Your task to perform on an android device: change timer sound Image 0: 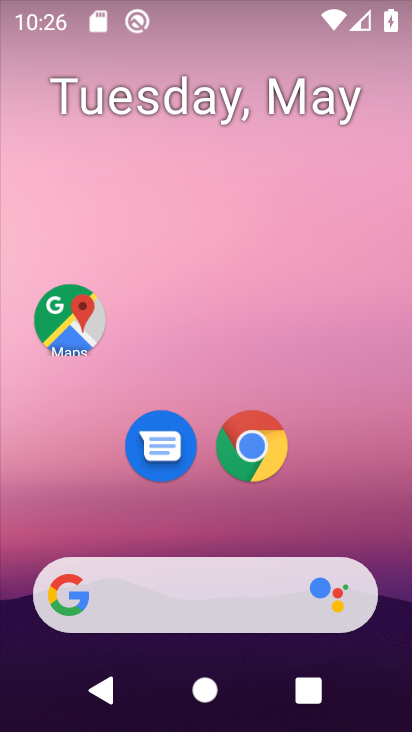
Step 0: drag from (296, 526) to (296, 211)
Your task to perform on an android device: change timer sound Image 1: 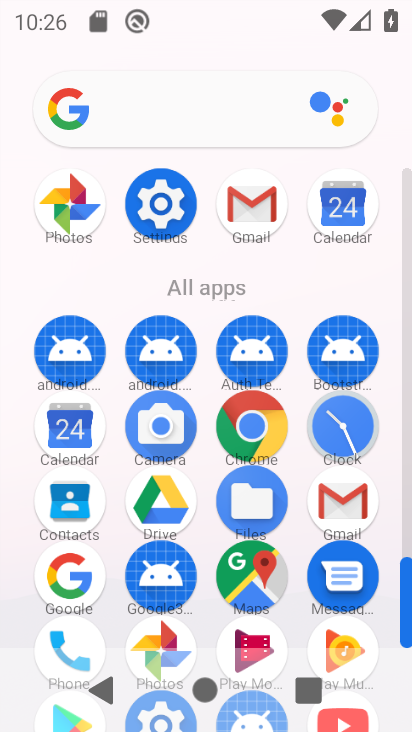
Step 1: click (339, 430)
Your task to perform on an android device: change timer sound Image 2: 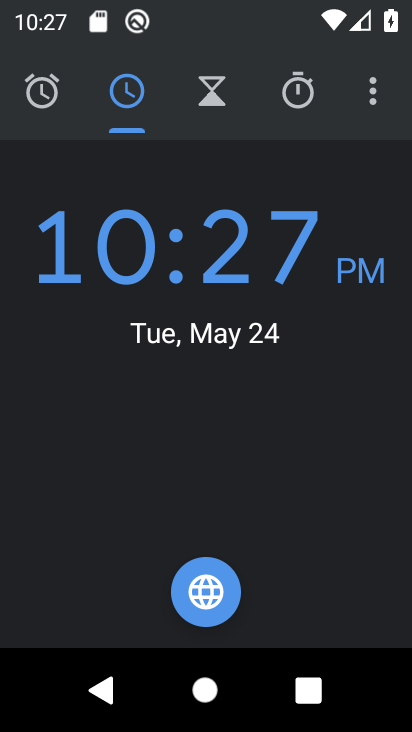
Step 2: click (372, 96)
Your task to perform on an android device: change timer sound Image 3: 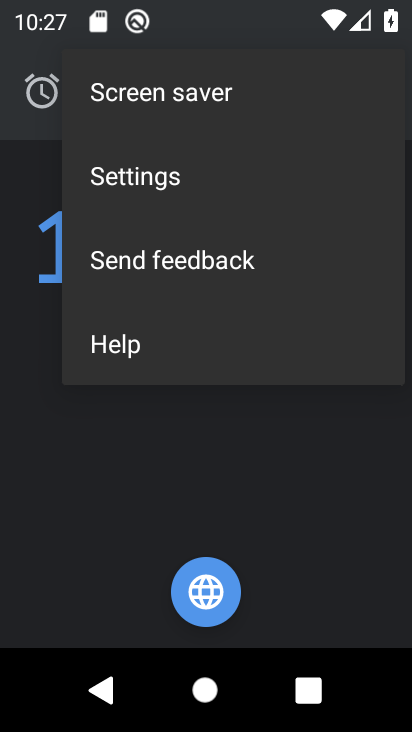
Step 3: click (140, 186)
Your task to perform on an android device: change timer sound Image 4: 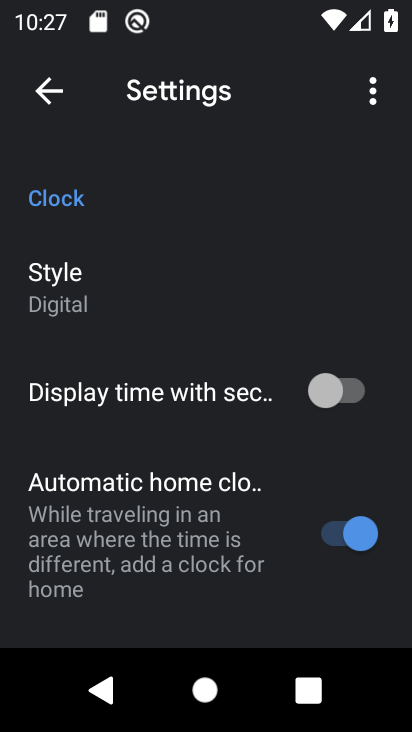
Step 4: drag from (211, 607) to (235, 182)
Your task to perform on an android device: change timer sound Image 5: 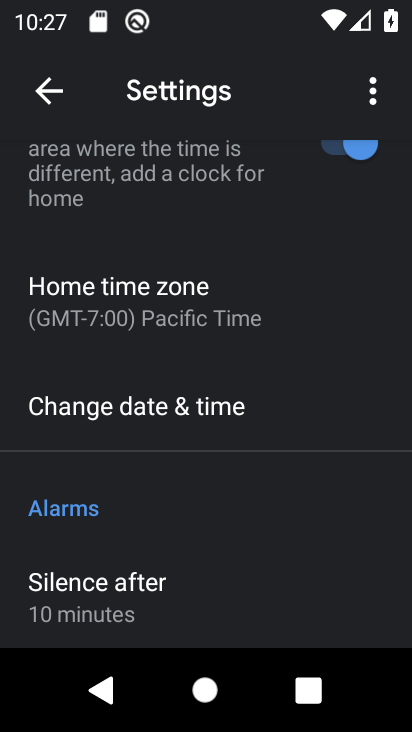
Step 5: drag from (203, 255) to (215, 180)
Your task to perform on an android device: change timer sound Image 6: 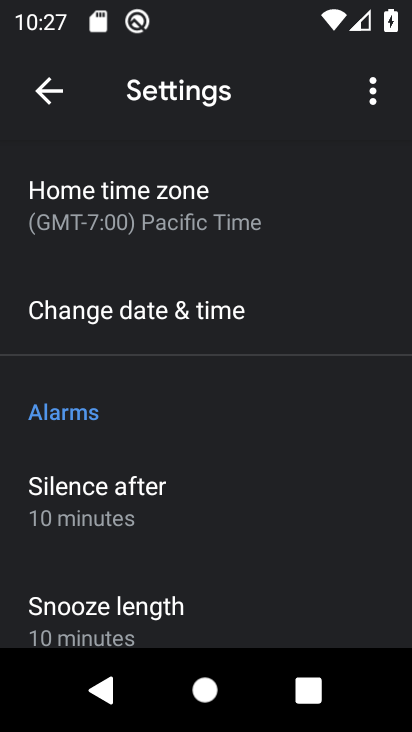
Step 6: drag from (134, 541) to (146, 171)
Your task to perform on an android device: change timer sound Image 7: 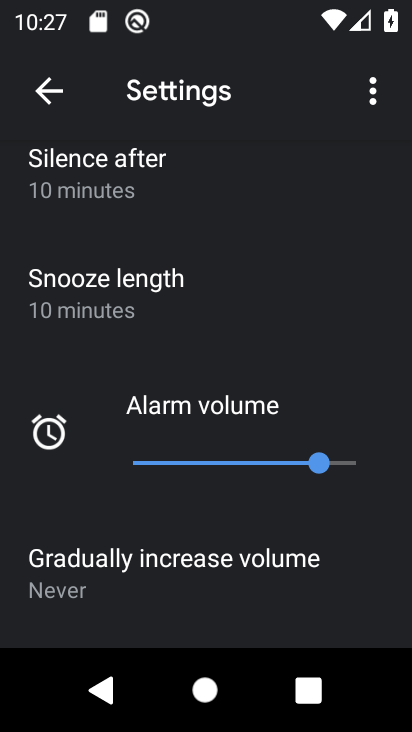
Step 7: drag from (163, 516) to (156, 186)
Your task to perform on an android device: change timer sound Image 8: 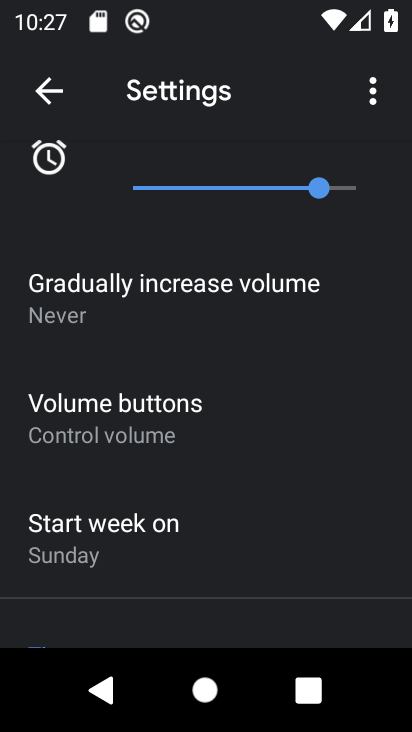
Step 8: drag from (130, 528) to (115, 200)
Your task to perform on an android device: change timer sound Image 9: 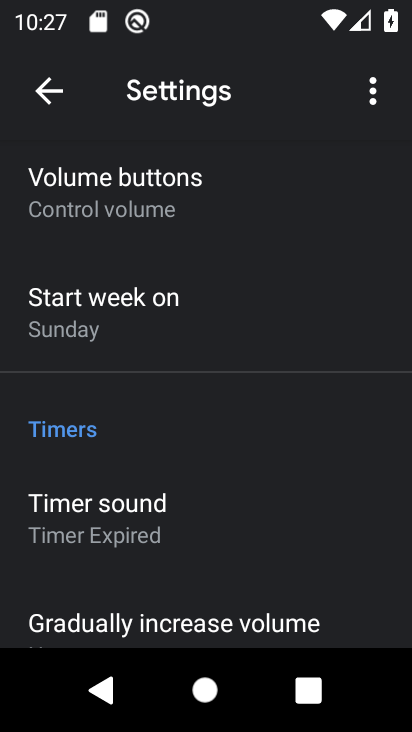
Step 9: click (144, 523)
Your task to perform on an android device: change timer sound Image 10: 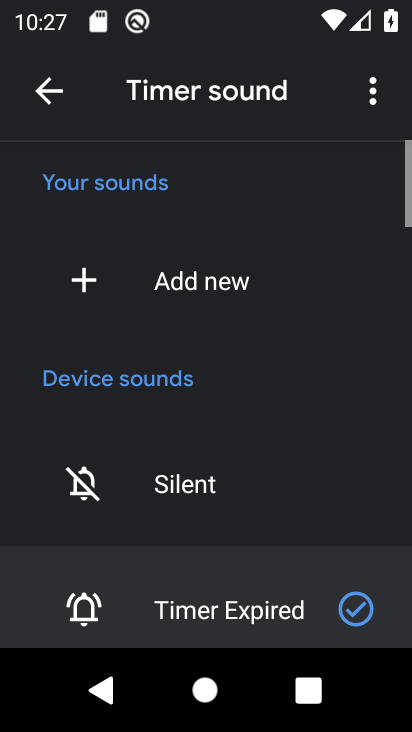
Step 10: drag from (158, 576) to (209, 158)
Your task to perform on an android device: change timer sound Image 11: 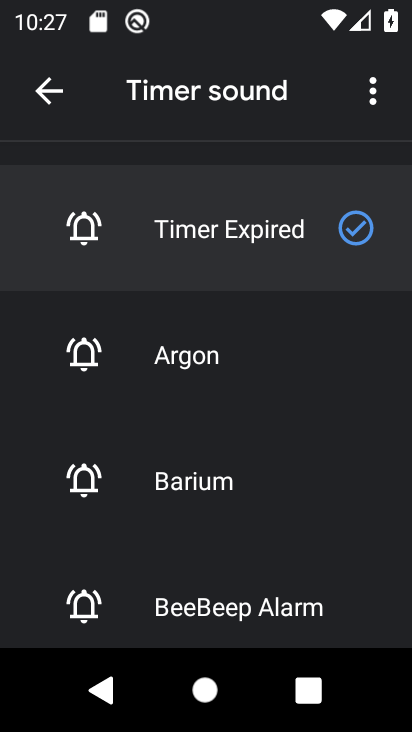
Step 11: click (202, 496)
Your task to perform on an android device: change timer sound Image 12: 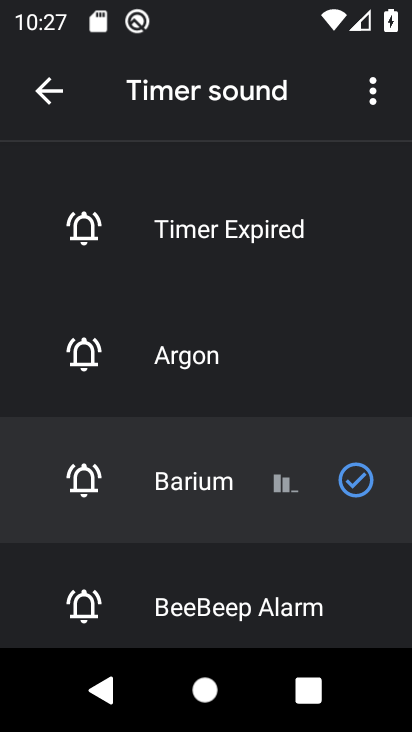
Step 12: task complete